Your task to perform on an android device: Open Wikipedia Image 0: 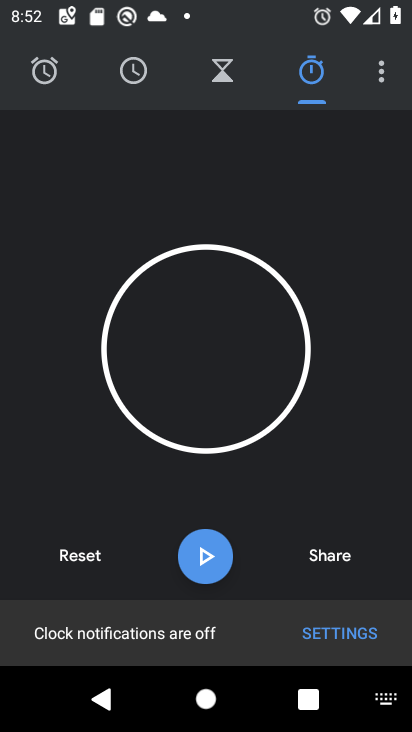
Step 0: press home button
Your task to perform on an android device: Open Wikipedia Image 1: 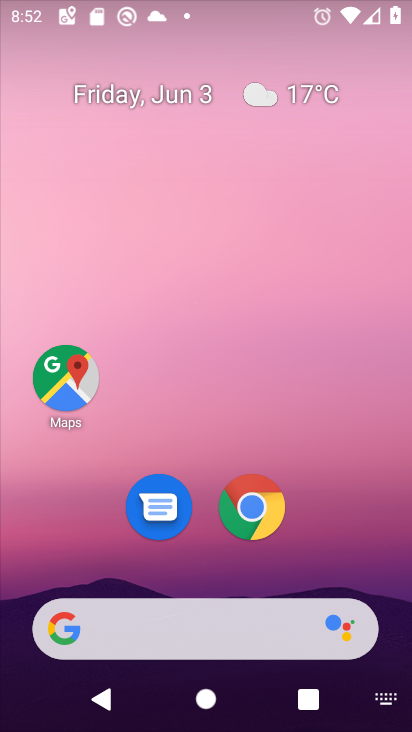
Step 1: click (278, 482)
Your task to perform on an android device: Open Wikipedia Image 2: 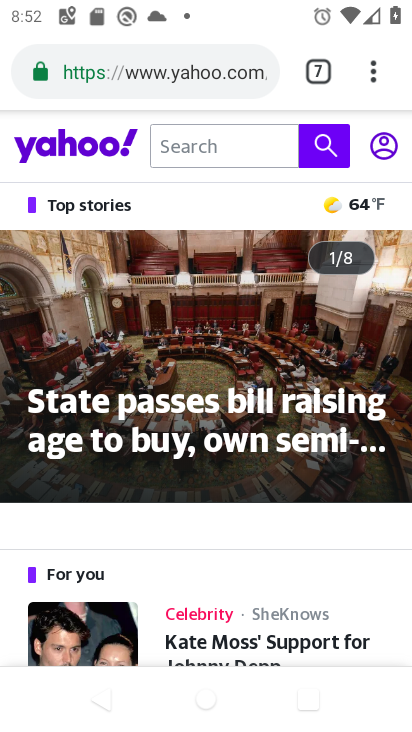
Step 2: click (324, 70)
Your task to perform on an android device: Open Wikipedia Image 3: 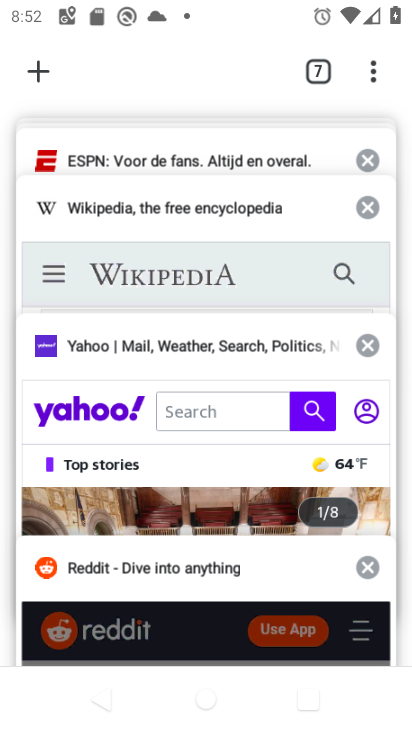
Step 3: click (165, 214)
Your task to perform on an android device: Open Wikipedia Image 4: 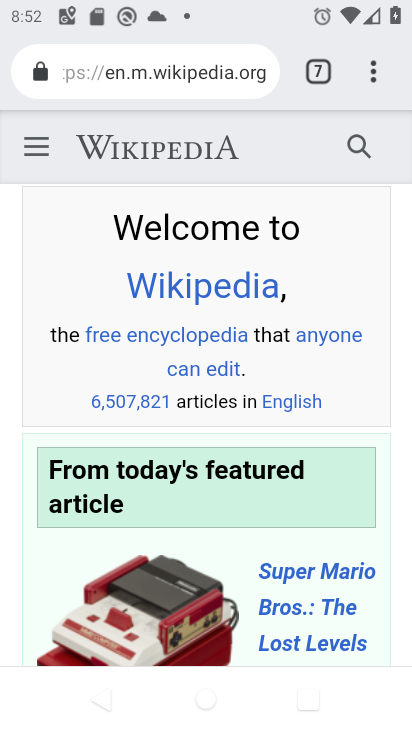
Step 4: task complete